Your task to perform on an android device: Open Google Maps Image 0: 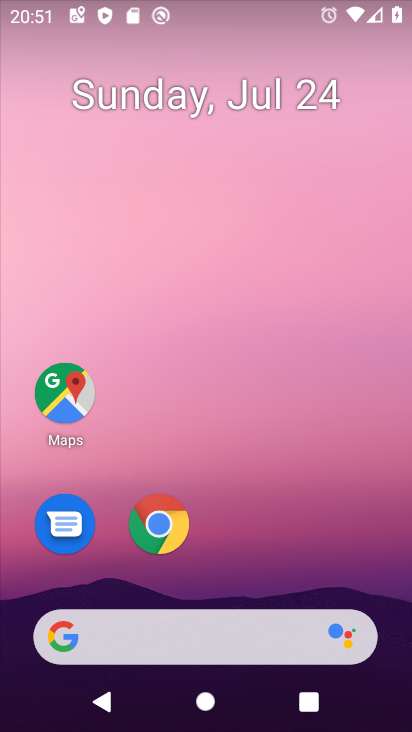
Step 0: click (63, 393)
Your task to perform on an android device: Open Google Maps Image 1: 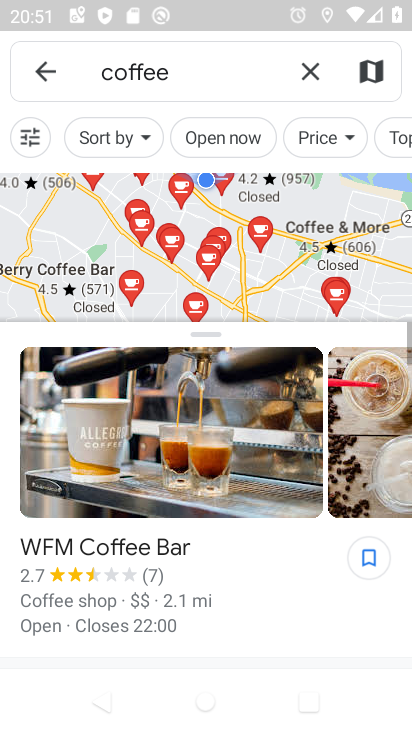
Step 1: click (315, 61)
Your task to perform on an android device: Open Google Maps Image 2: 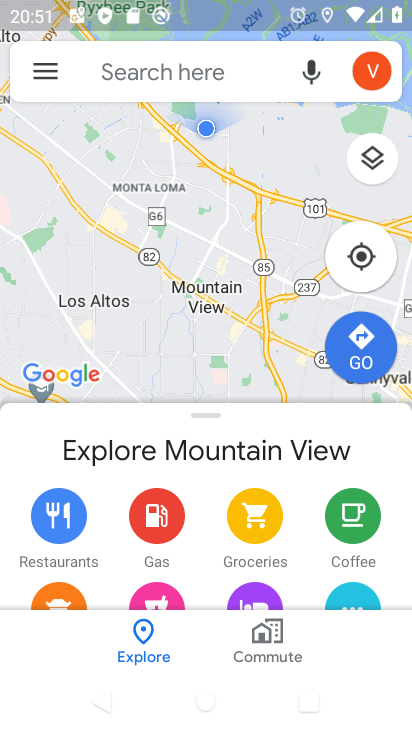
Step 2: task complete